Your task to perform on an android device: Open the Play Movies app and select the watchlist tab. Image 0: 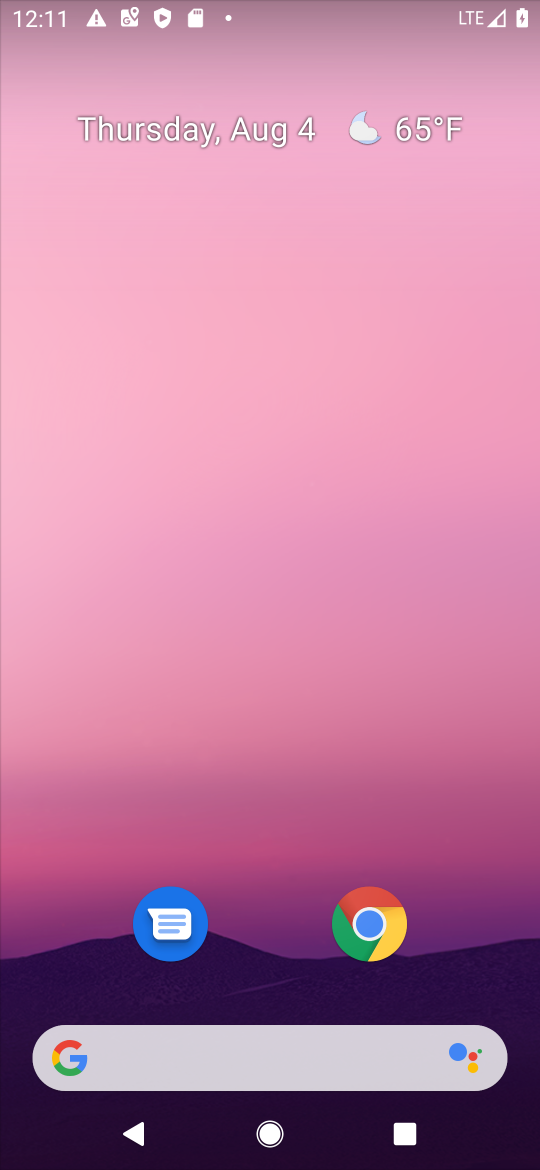
Step 0: click (29, 449)
Your task to perform on an android device: Open the Play Movies app and select the watchlist tab. Image 1: 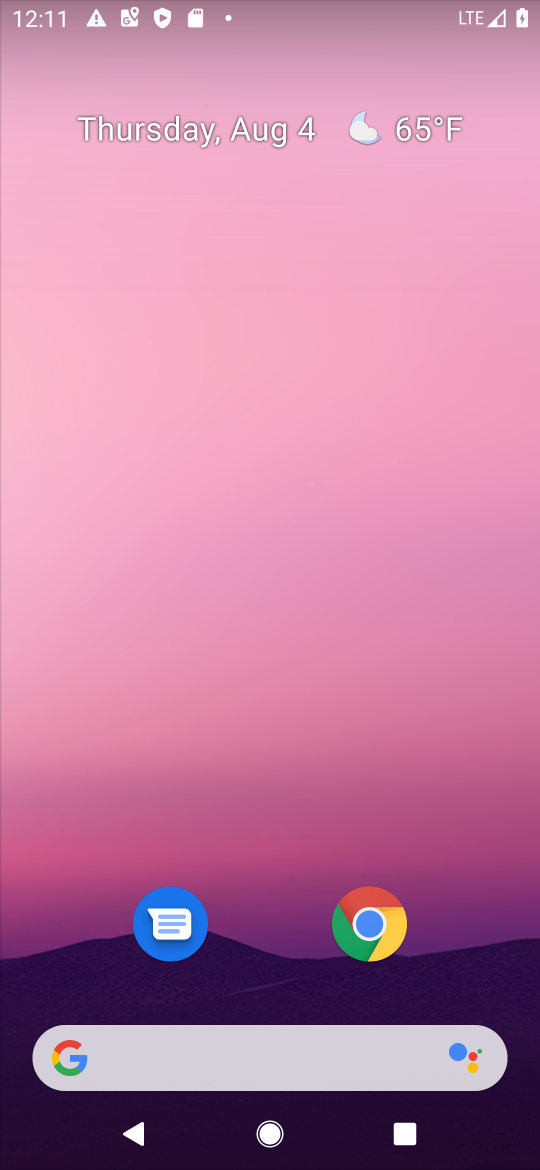
Step 1: drag from (189, 1122) to (116, 2)
Your task to perform on an android device: Open the Play Movies app and select the watchlist tab. Image 2: 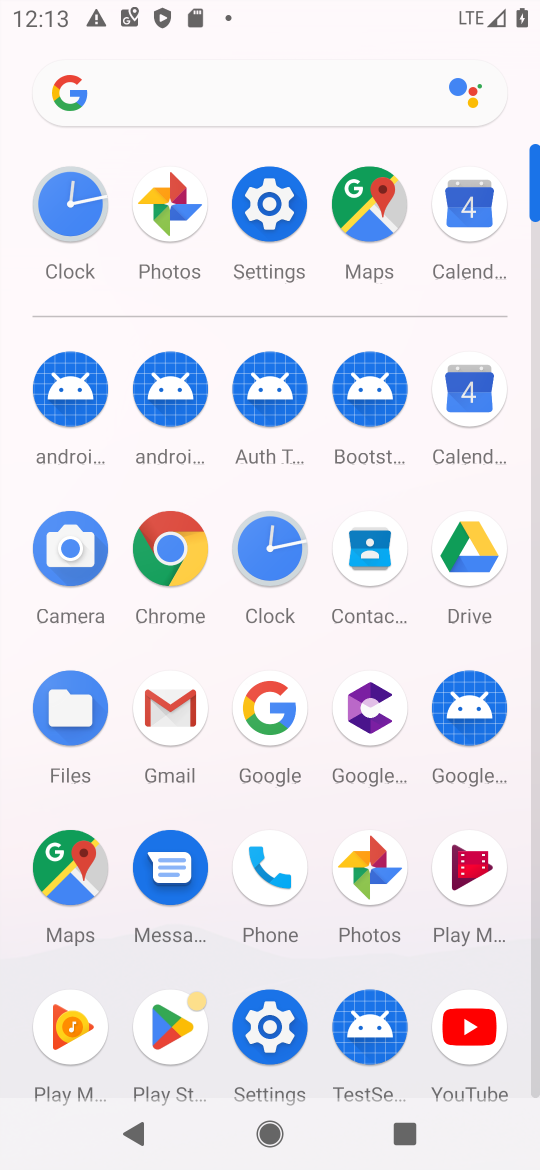
Step 2: drag from (279, 1021) to (198, 601)
Your task to perform on an android device: Open the Play Movies app and select the watchlist tab. Image 3: 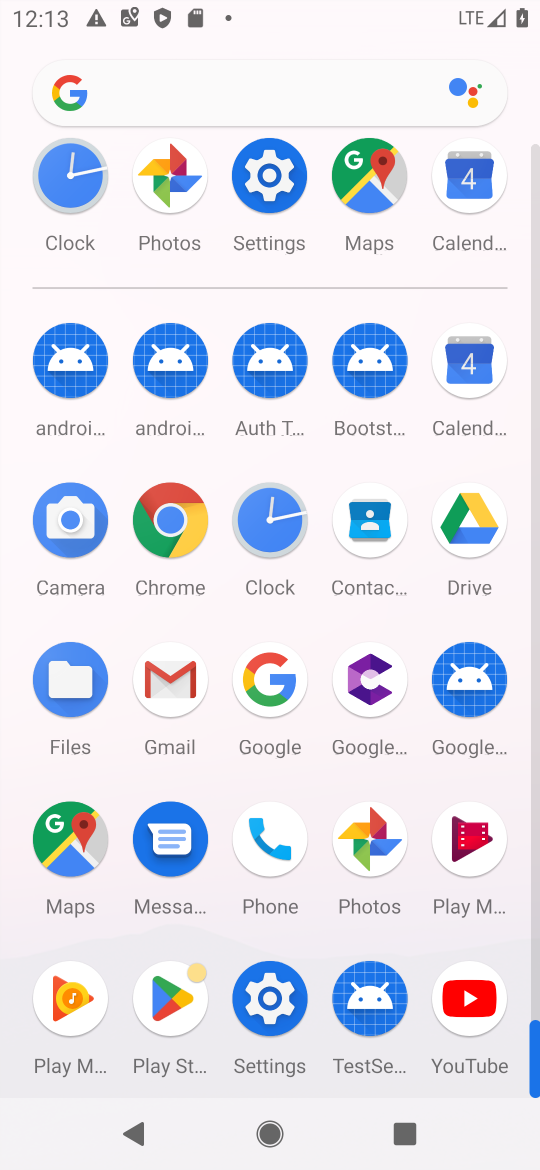
Step 3: click (454, 856)
Your task to perform on an android device: Open the Play Movies app and select the watchlist tab. Image 4: 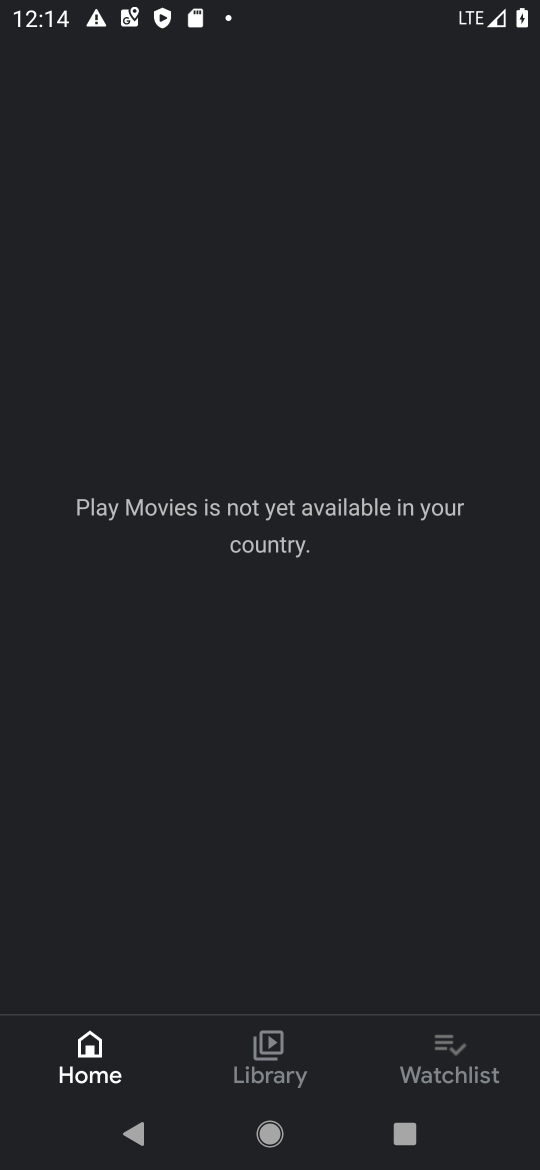
Step 4: click (437, 1051)
Your task to perform on an android device: Open the Play Movies app and select the watchlist tab. Image 5: 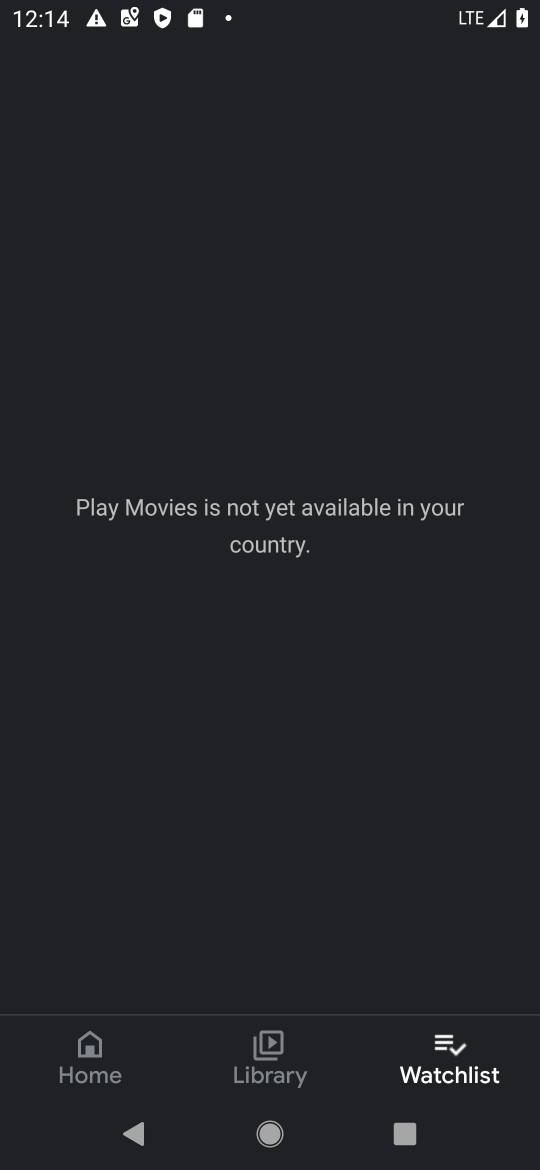
Step 5: task complete